Your task to perform on an android device: Open accessibility settings Image 0: 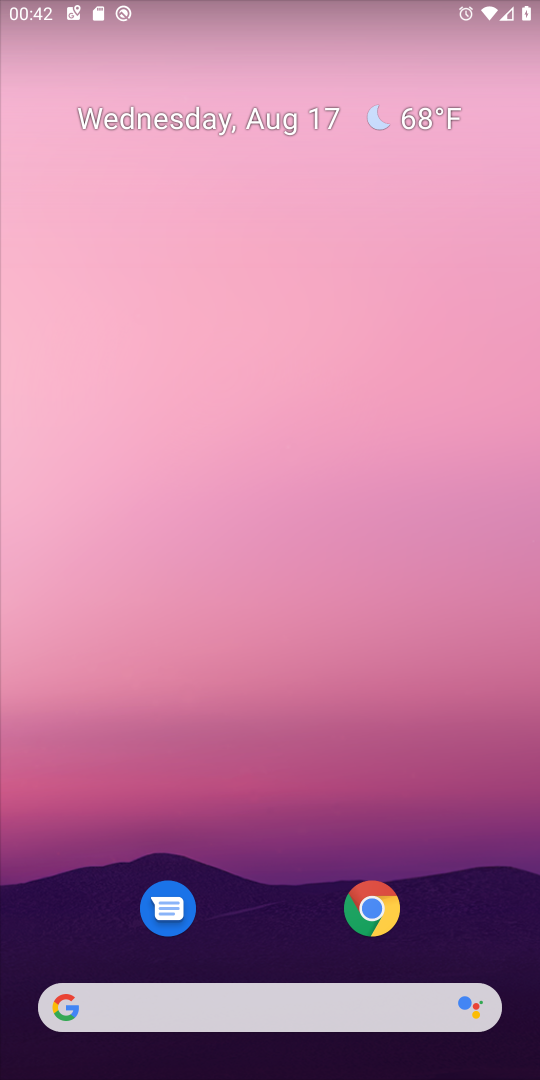
Step 0: drag from (280, 895) to (284, 250)
Your task to perform on an android device: Open accessibility settings Image 1: 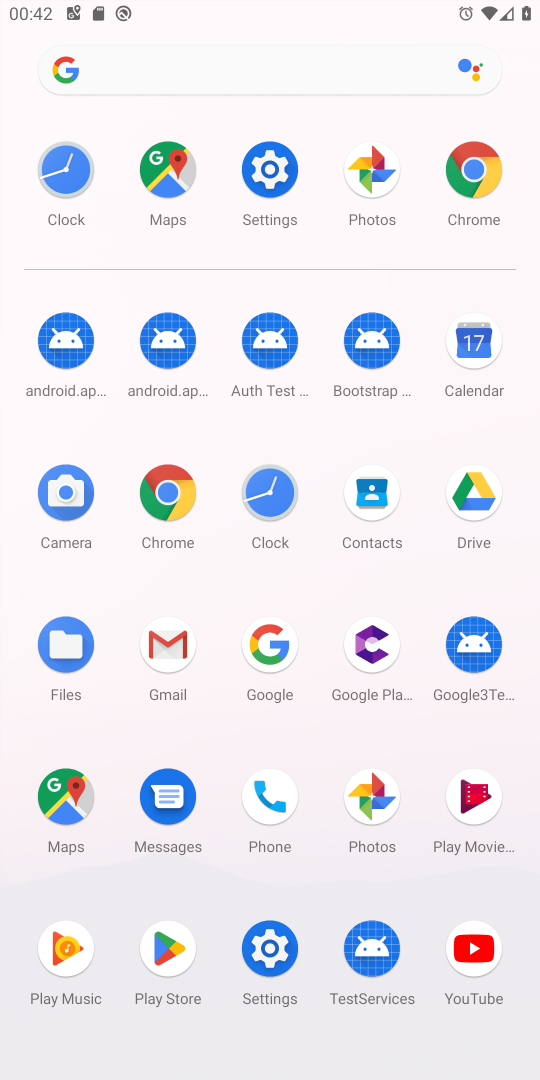
Step 1: click (280, 182)
Your task to perform on an android device: Open accessibility settings Image 2: 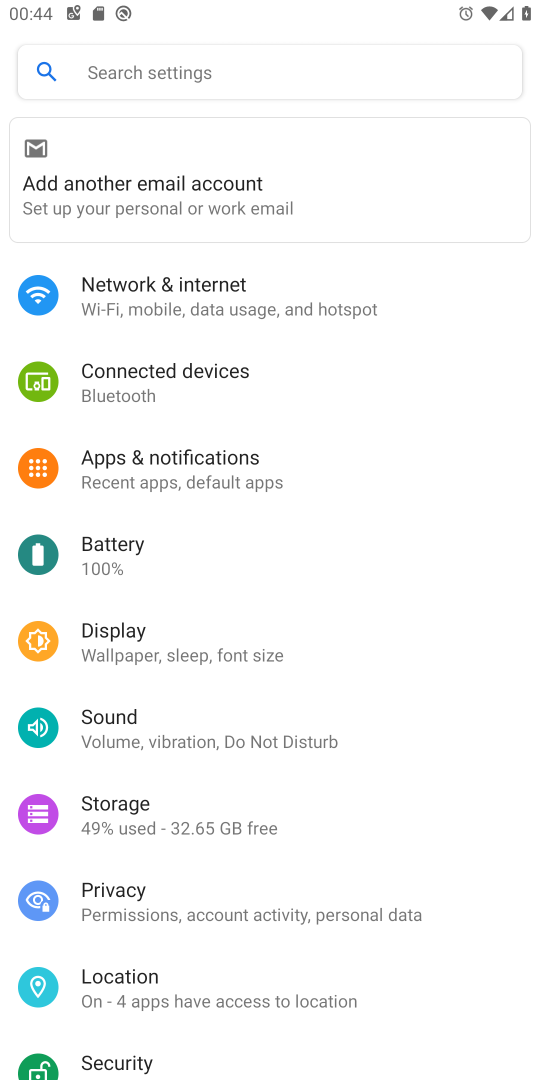
Step 2: drag from (170, 919) to (226, 471)
Your task to perform on an android device: Open accessibility settings Image 3: 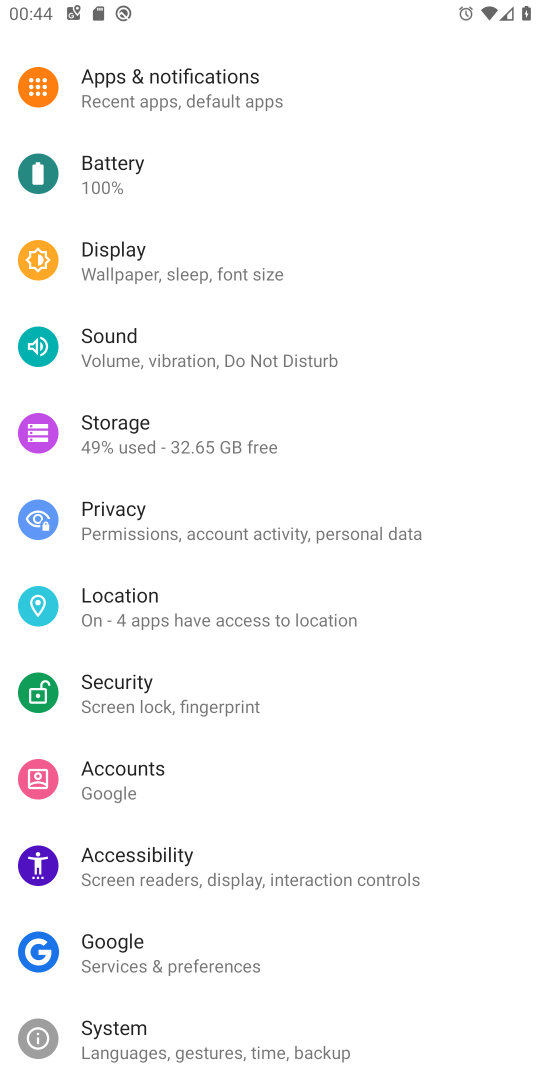
Step 3: click (206, 872)
Your task to perform on an android device: Open accessibility settings Image 4: 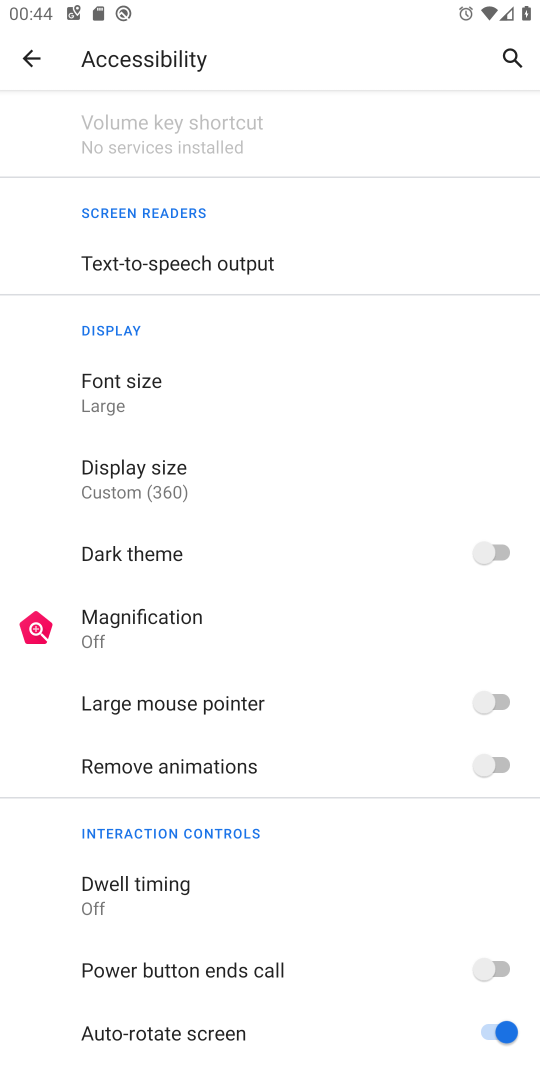
Step 4: task complete